Your task to perform on an android device: show emergency info Image 0: 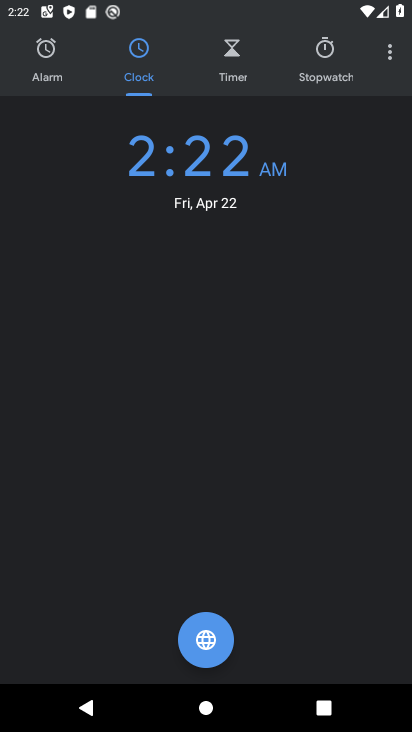
Step 0: press home button
Your task to perform on an android device: show emergency info Image 1: 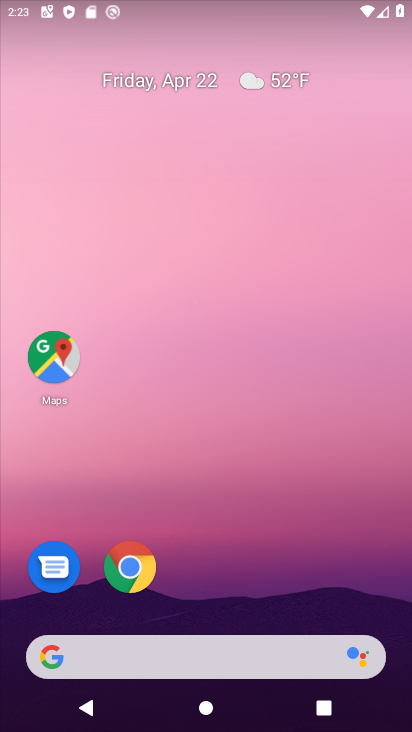
Step 1: drag from (265, 501) to (227, 43)
Your task to perform on an android device: show emergency info Image 2: 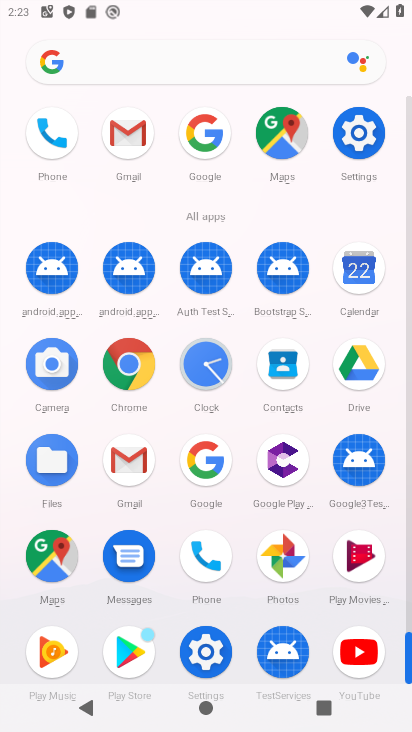
Step 2: click (358, 140)
Your task to perform on an android device: show emergency info Image 3: 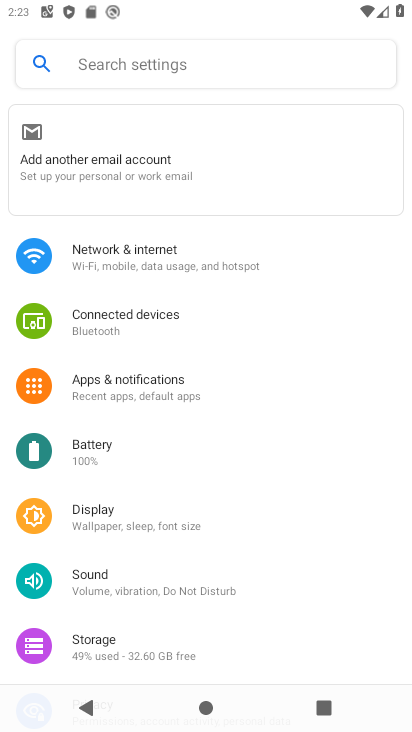
Step 3: drag from (180, 647) to (162, 195)
Your task to perform on an android device: show emergency info Image 4: 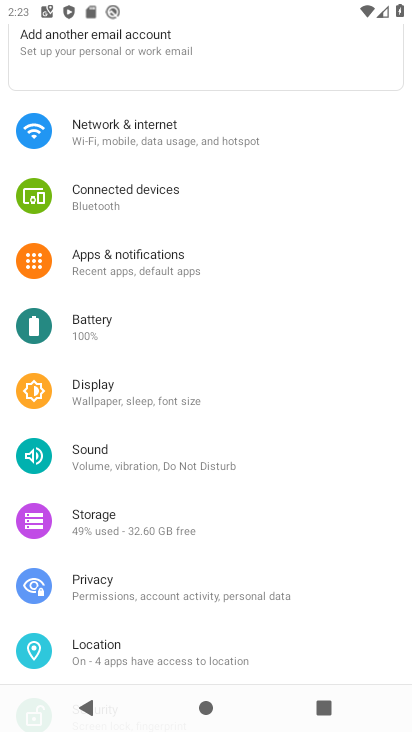
Step 4: drag from (203, 569) to (186, 251)
Your task to perform on an android device: show emergency info Image 5: 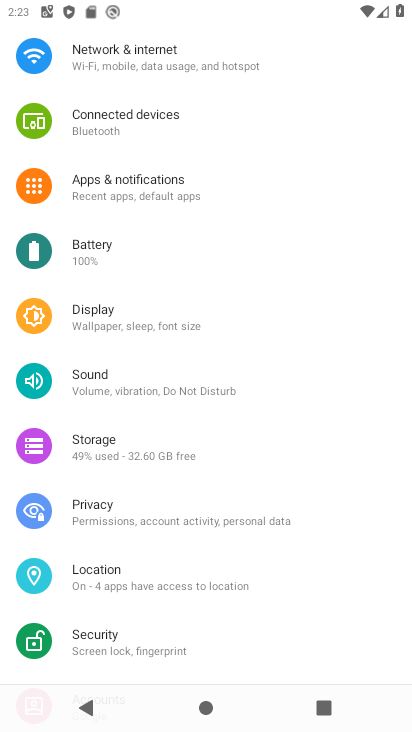
Step 5: drag from (212, 623) to (229, 189)
Your task to perform on an android device: show emergency info Image 6: 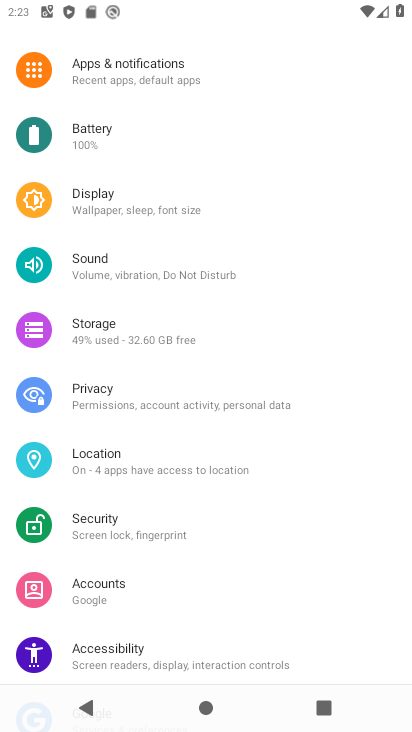
Step 6: drag from (212, 537) to (194, 176)
Your task to perform on an android device: show emergency info Image 7: 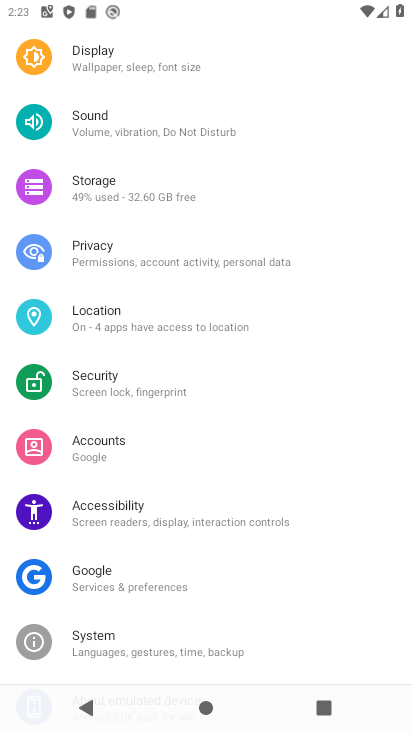
Step 7: drag from (189, 564) to (196, 171)
Your task to perform on an android device: show emergency info Image 8: 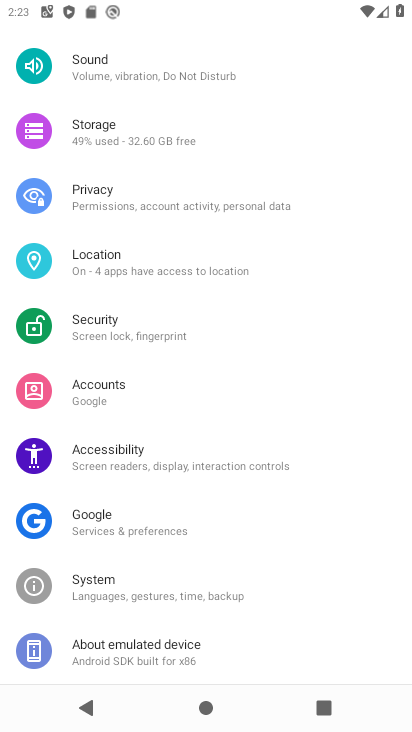
Step 8: click (183, 658)
Your task to perform on an android device: show emergency info Image 9: 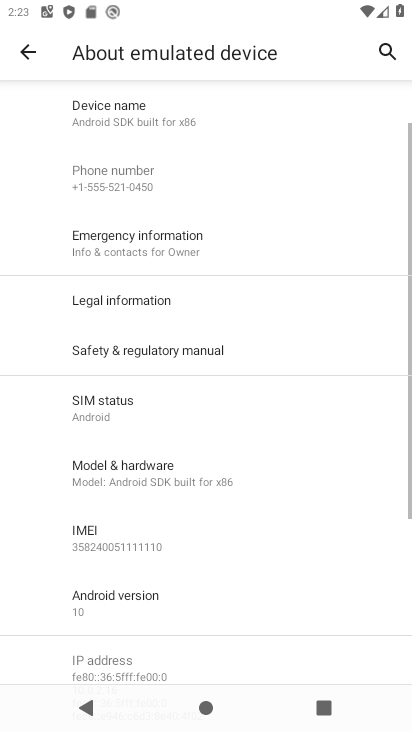
Step 9: click (177, 243)
Your task to perform on an android device: show emergency info Image 10: 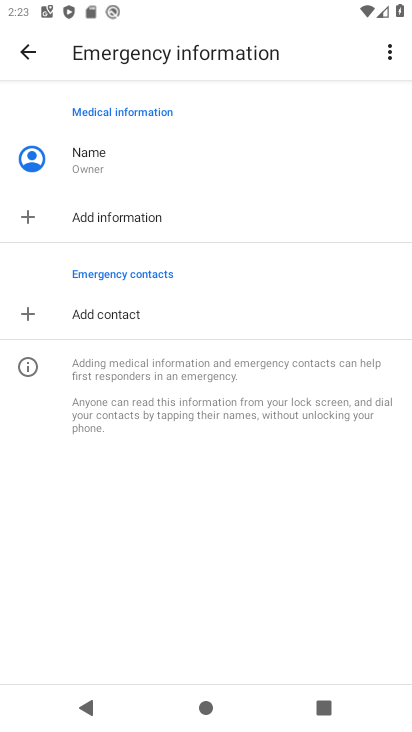
Step 10: task complete